Your task to perform on an android device: Open Google Maps Image 0: 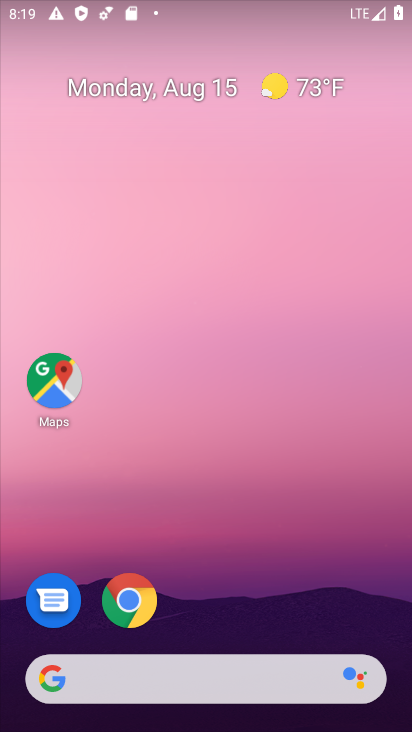
Step 0: drag from (212, 625) to (188, 113)
Your task to perform on an android device: Open Google Maps Image 1: 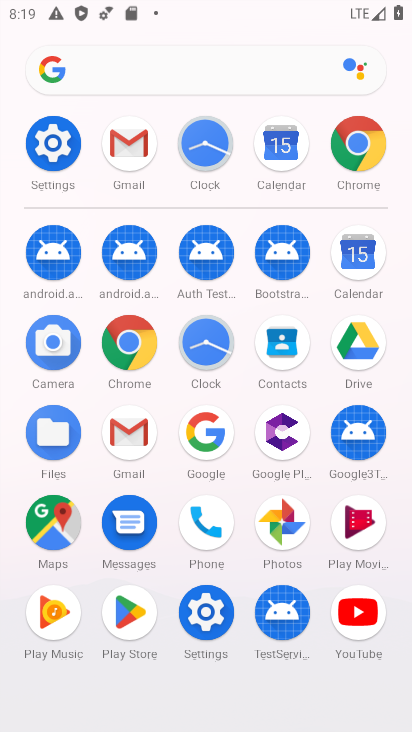
Step 1: click (61, 527)
Your task to perform on an android device: Open Google Maps Image 2: 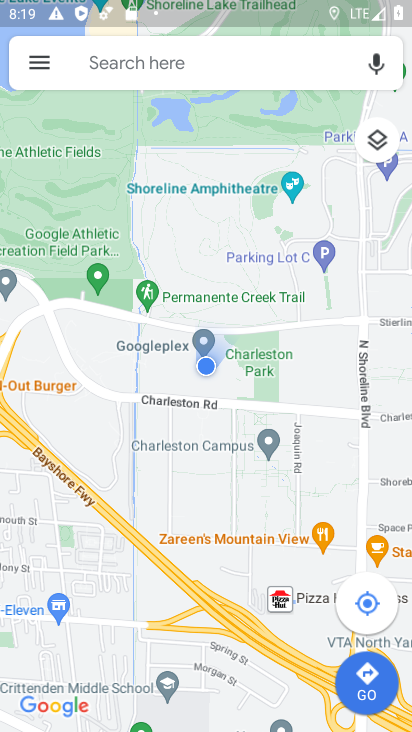
Step 2: task complete